Your task to perform on an android device: Open the map Image 0: 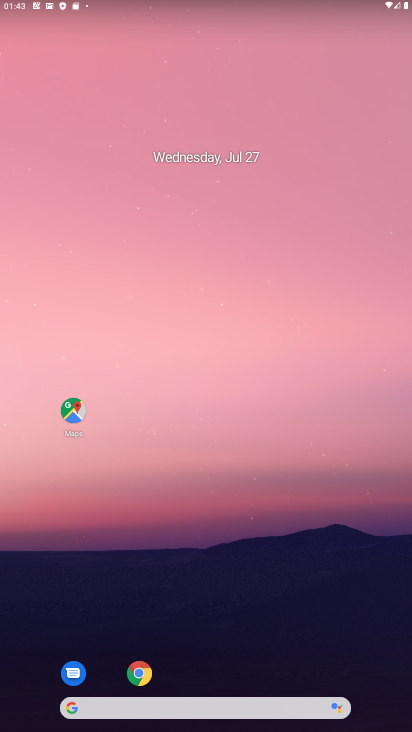
Step 0: click (80, 414)
Your task to perform on an android device: Open the map Image 1: 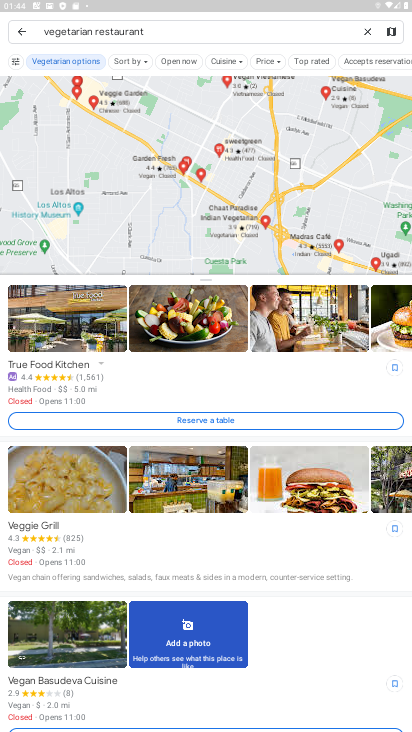
Step 1: task complete